Your task to perform on an android device: Open network settings Image 0: 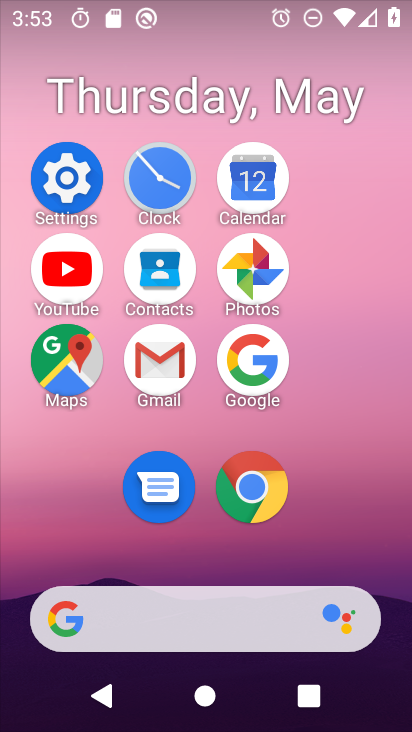
Step 0: click (84, 163)
Your task to perform on an android device: Open network settings Image 1: 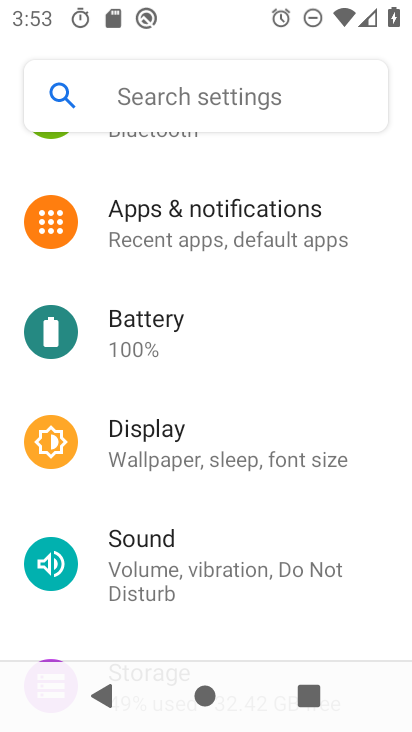
Step 1: drag from (244, 149) to (212, 472)
Your task to perform on an android device: Open network settings Image 2: 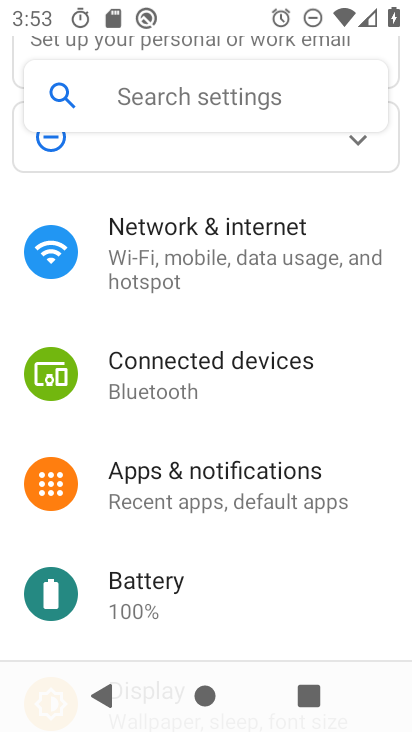
Step 2: click (230, 292)
Your task to perform on an android device: Open network settings Image 3: 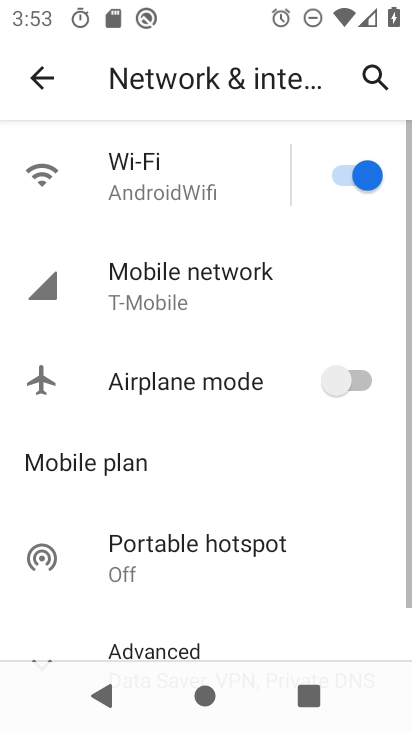
Step 3: click (230, 292)
Your task to perform on an android device: Open network settings Image 4: 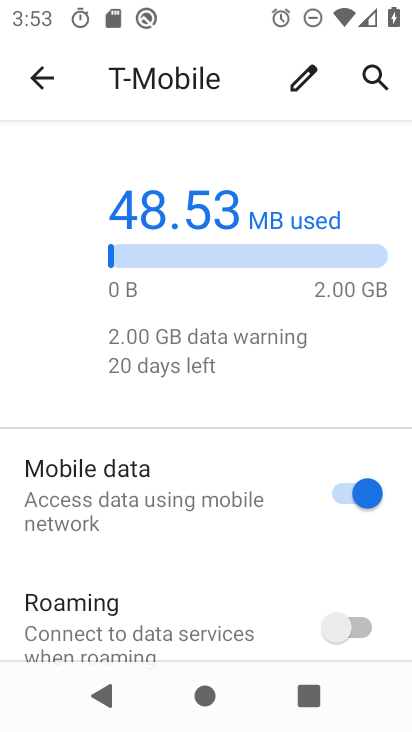
Step 4: task complete